Your task to perform on an android device: see sites visited before in the chrome app Image 0: 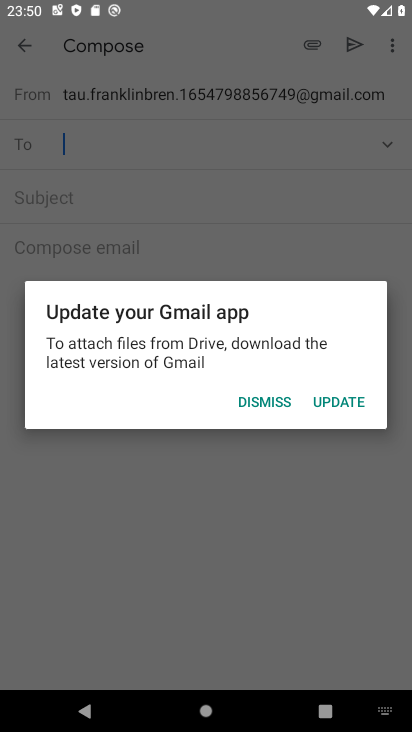
Step 0: press home button
Your task to perform on an android device: see sites visited before in the chrome app Image 1: 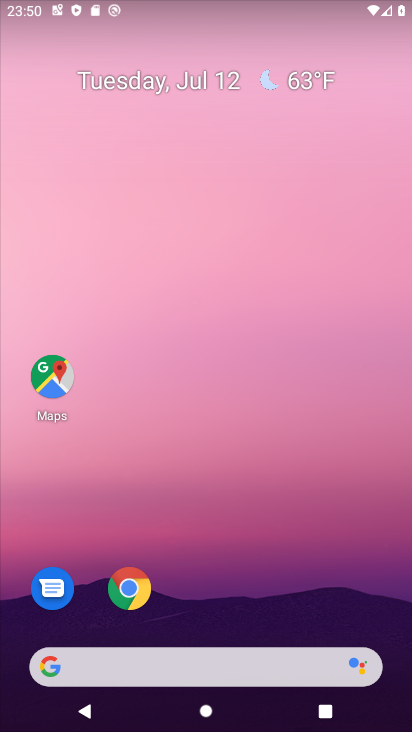
Step 1: click (131, 584)
Your task to perform on an android device: see sites visited before in the chrome app Image 2: 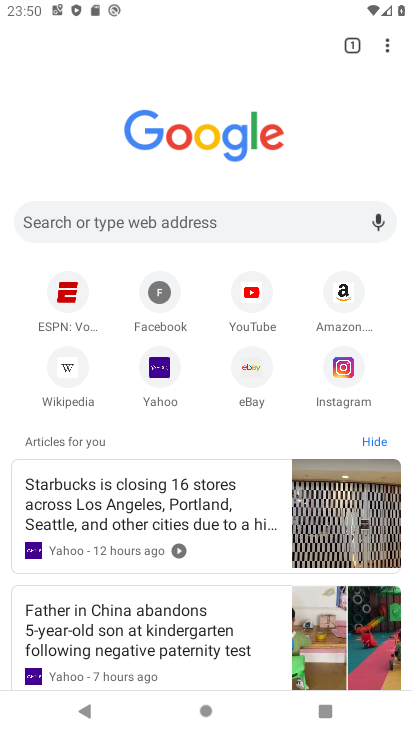
Step 2: click (383, 46)
Your task to perform on an android device: see sites visited before in the chrome app Image 3: 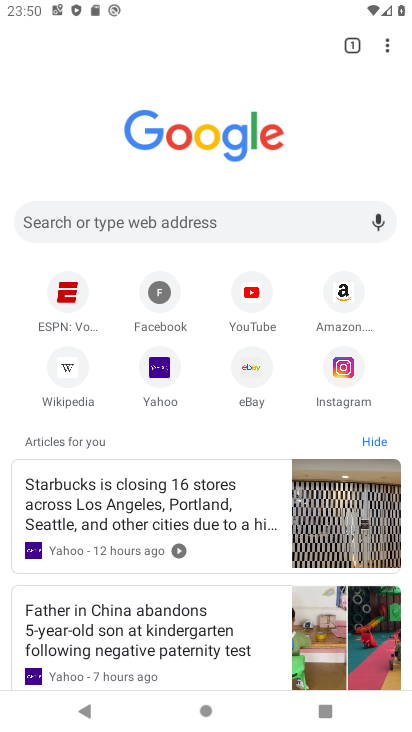
Step 3: click (387, 46)
Your task to perform on an android device: see sites visited before in the chrome app Image 4: 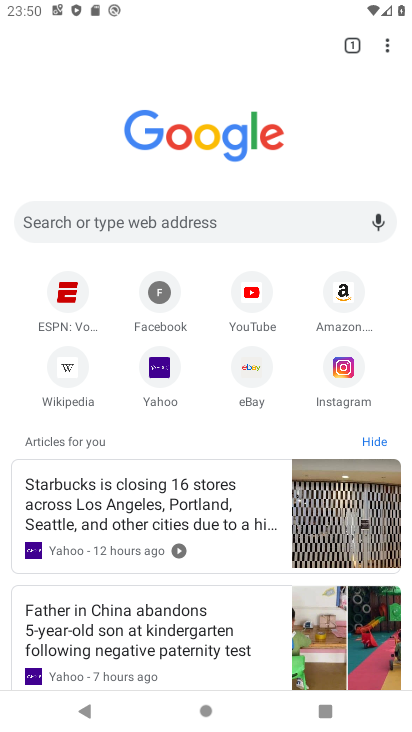
Step 4: click (382, 45)
Your task to perform on an android device: see sites visited before in the chrome app Image 5: 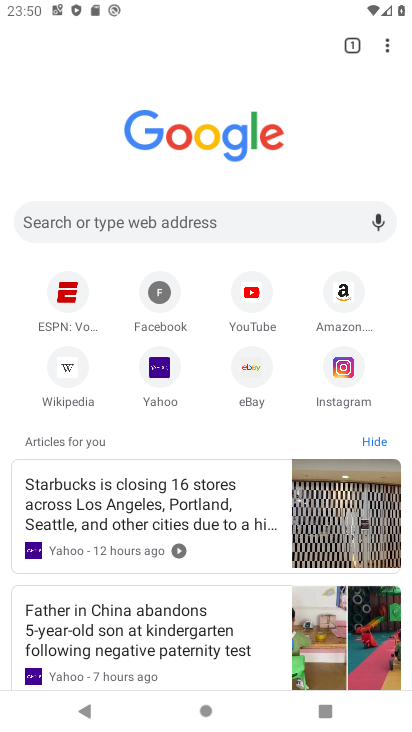
Step 5: click (382, 45)
Your task to perform on an android device: see sites visited before in the chrome app Image 6: 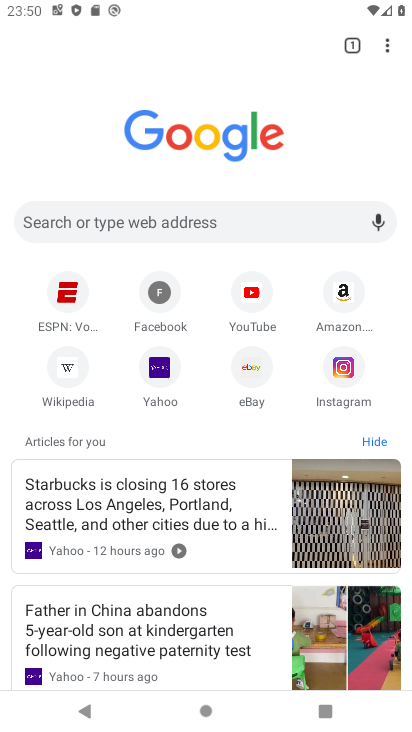
Step 6: click (384, 46)
Your task to perform on an android device: see sites visited before in the chrome app Image 7: 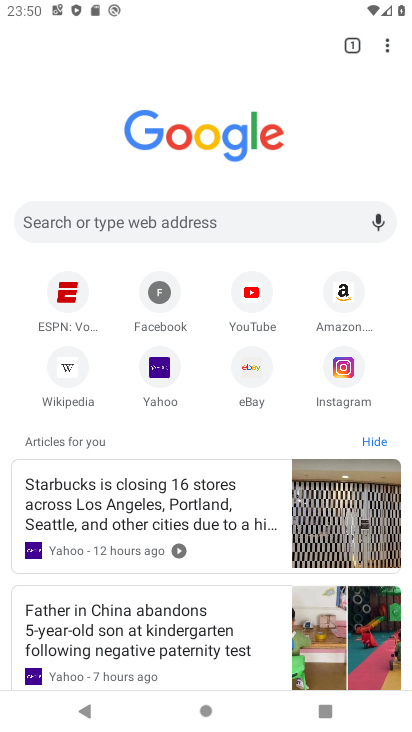
Step 7: task complete